Your task to perform on an android device: set the timer Image 0: 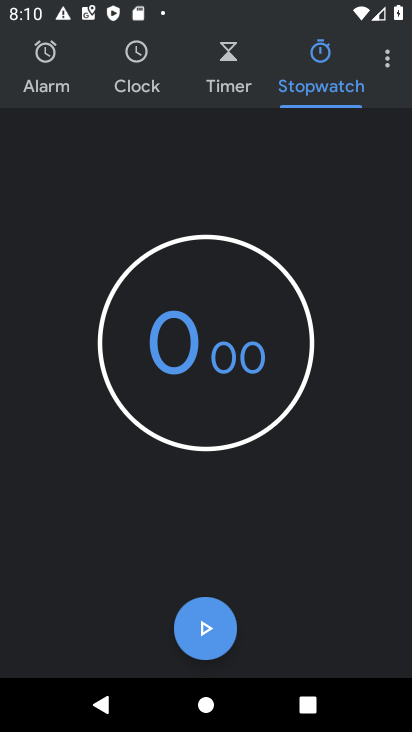
Step 0: click (238, 83)
Your task to perform on an android device: set the timer Image 1: 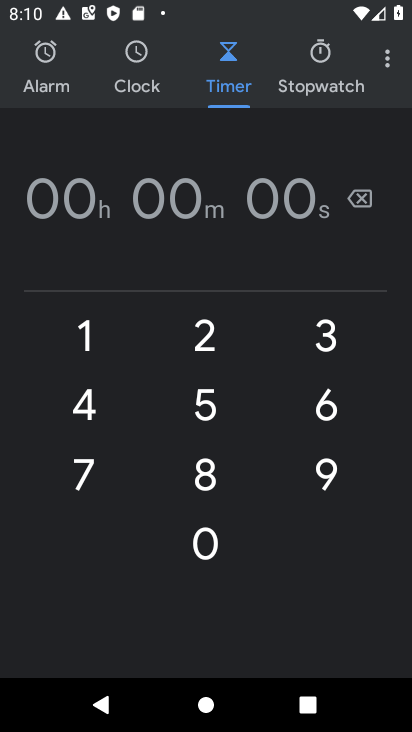
Step 1: task complete